Your task to perform on an android device: Open display settings Image 0: 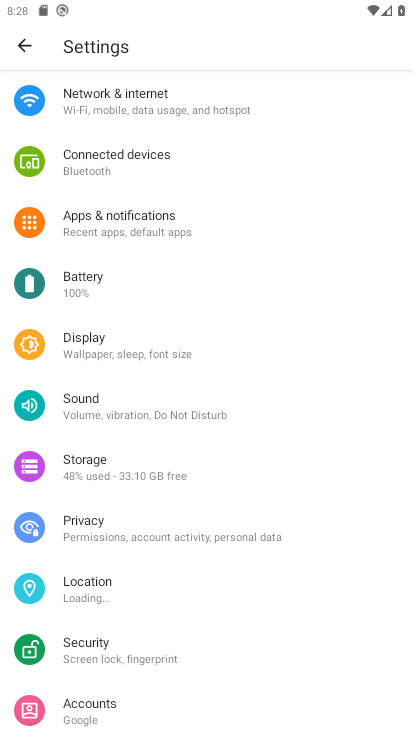
Step 0: click (140, 338)
Your task to perform on an android device: Open display settings Image 1: 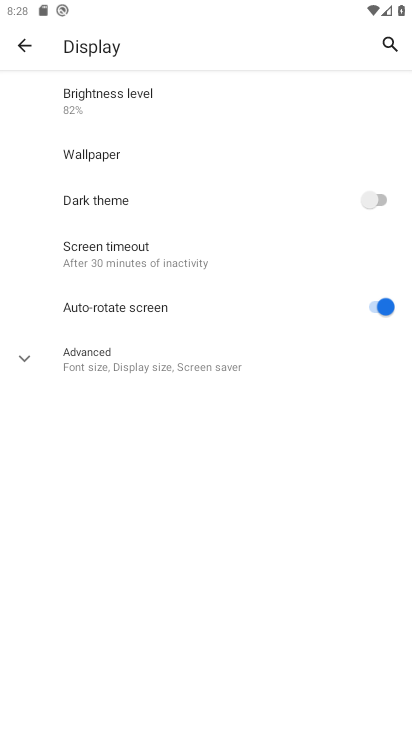
Step 1: task complete